Your task to perform on an android device: toggle sleep mode Image 0: 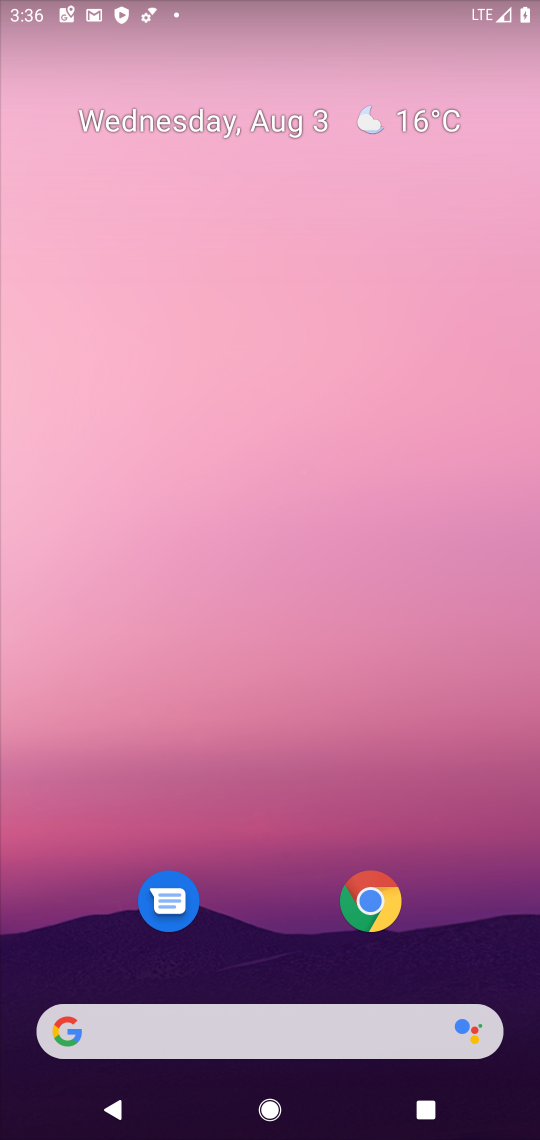
Step 0: drag from (262, 841) to (192, 459)
Your task to perform on an android device: toggle sleep mode Image 1: 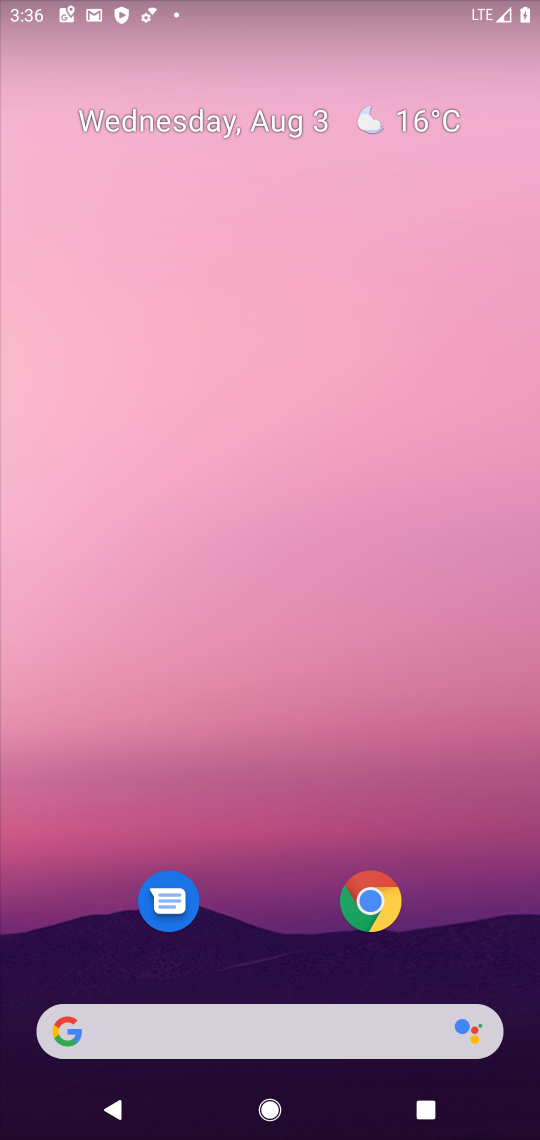
Step 1: drag from (247, 962) to (258, 206)
Your task to perform on an android device: toggle sleep mode Image 2: 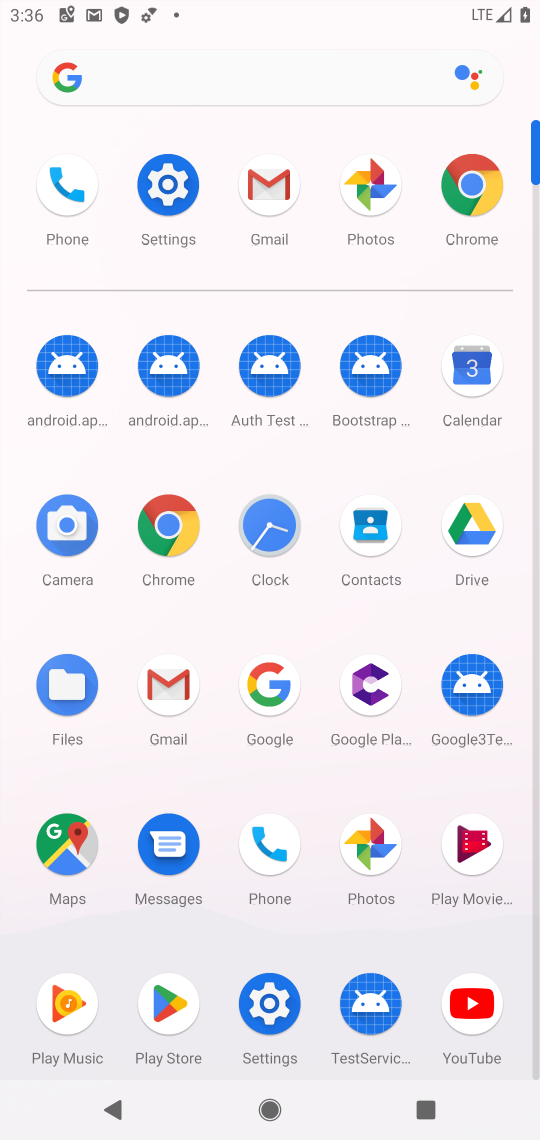
Step 2: click (170, 156)
Your task to perform on an android device: toggle sleep mode Image 3: 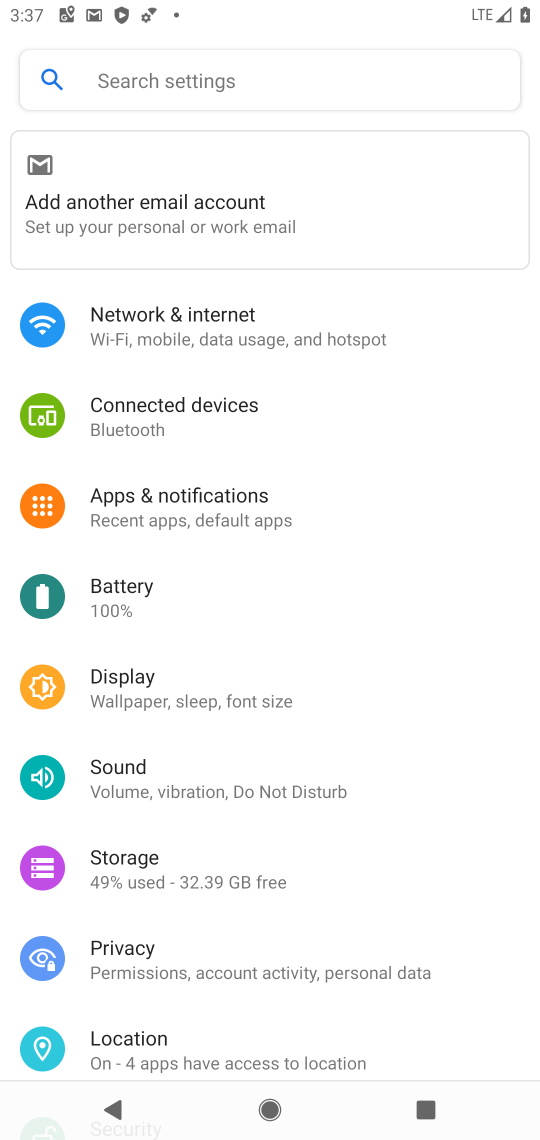
Step 3: task complete